Your task to perform on an android device: Search for Mexican restaurants on Maps Image 0: 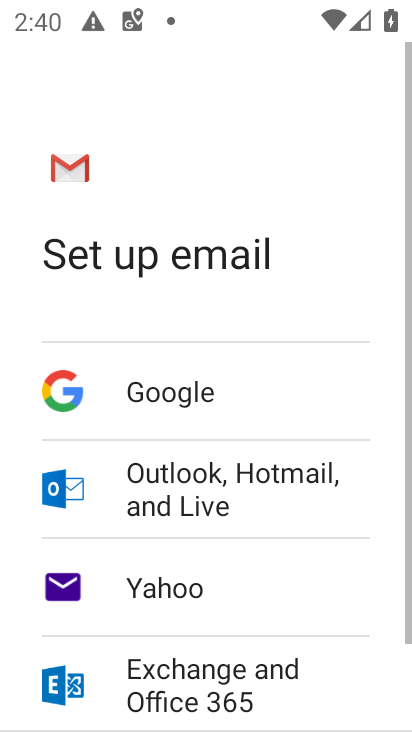
Step 0: press home button
Your task to perform on an android device: Search for Mexican restaurants on Maps Image 1: 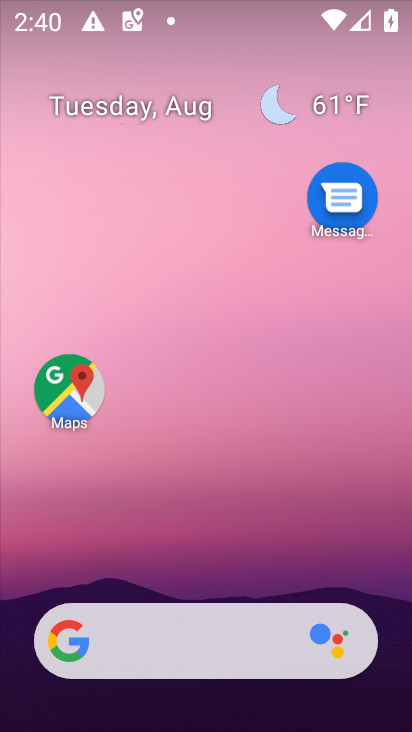
Step 1: drag from (240, 577) to (269, 290)
Your task to perform on an android device: Search for Mexican restaurants on Maps Image 2: 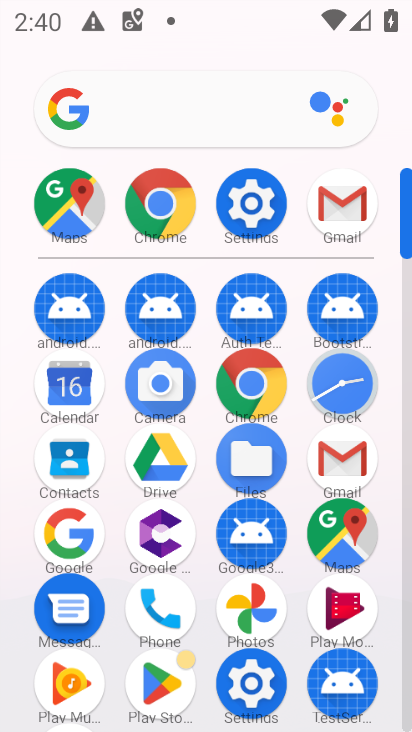
Step 2: click (80, 216)
Your task to perform on an android device: Search for Mexican restaurants on Maps Image 3: 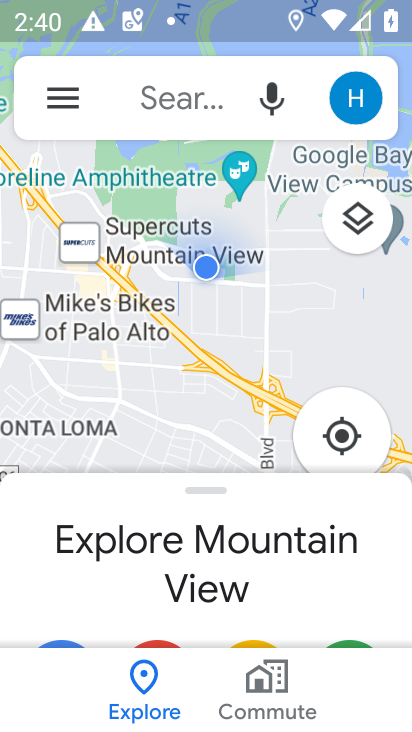
Step 3: click (208, 103)
Your task to perform on an android device: Search for Mexican restaurants on Maps Image 4: 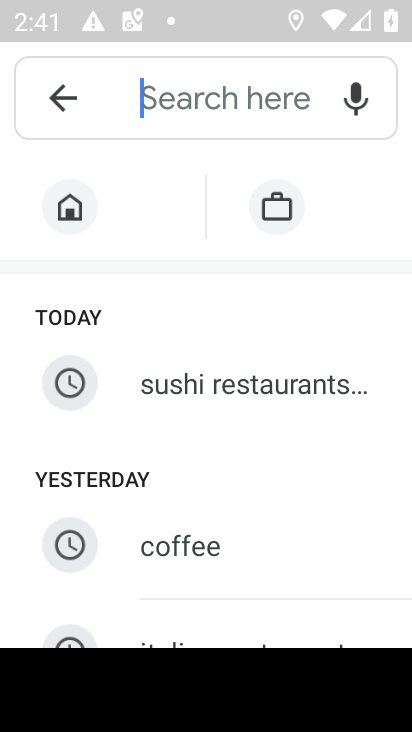
Step 4: drag from (240, 545) to (235, 191)
Your task to perform on an android device: Search for Mexican restaurants on Maps Image 5: 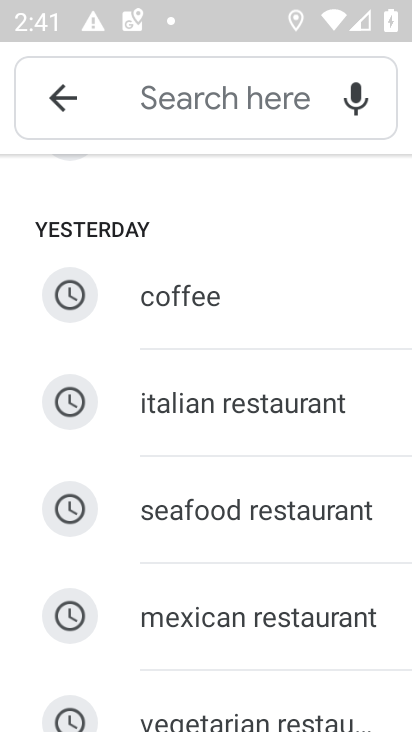
Step 5: drag from (256, 672) to (257, 388)
Your task to perform on an android device: Search for Mexican restaurants on Maps Image 6: 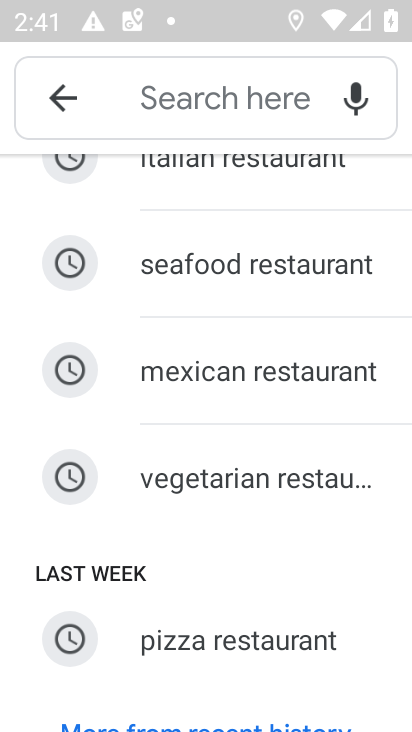
Step 6: drag from (266, 669) to (261, 549)
Your task to perform on an android device: Search for Mexican restaurants on Maps Image 7: 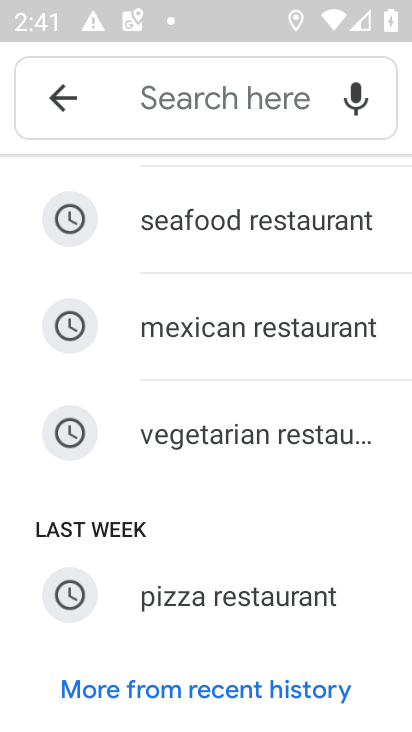
Step 7: click (247, 322)
Your task to perform on an android device: Search for Mexican restaurants on Maps Image 8: 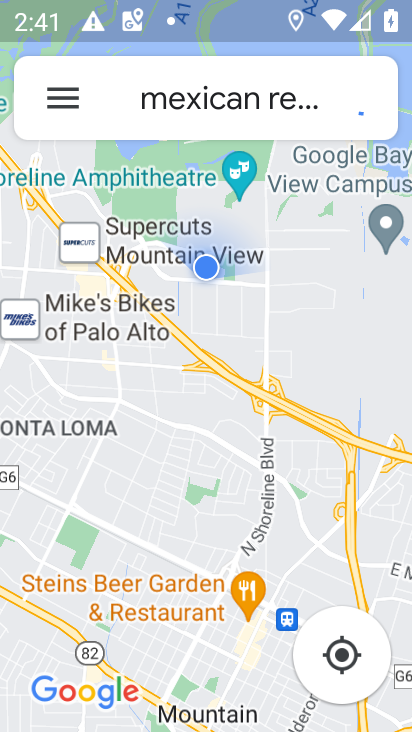
Step 8: task complete